Your task to perform on an android device: Show the shopping cart on costco. Search for "logitech g502" on costco, select the first entry, and add it to the cart. Image 0: 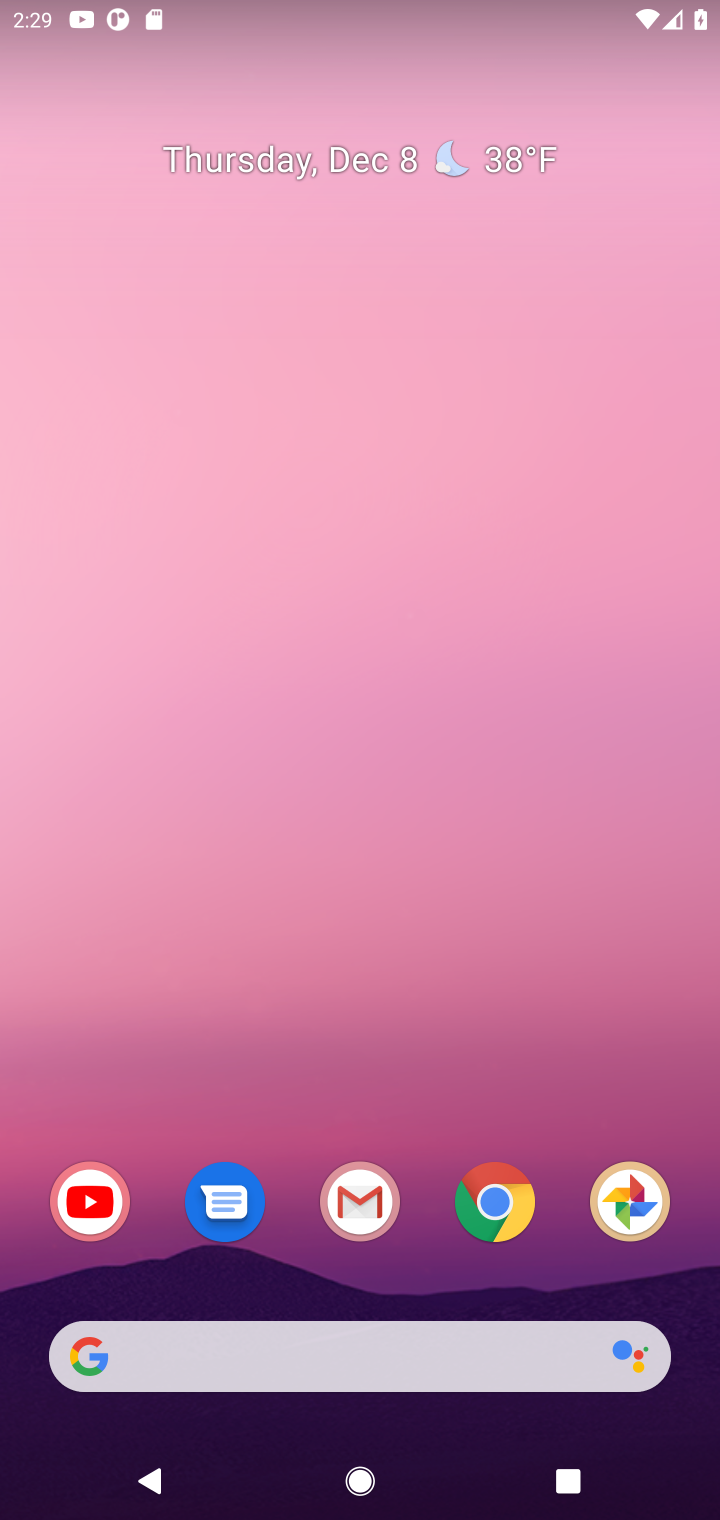
Step 0: click (507, 1203)
Your task to perform on an android device: Show the shopping cart on costco. Search for "logitech g502" on costco, select the first entry, and add it to the cart. Image 1: 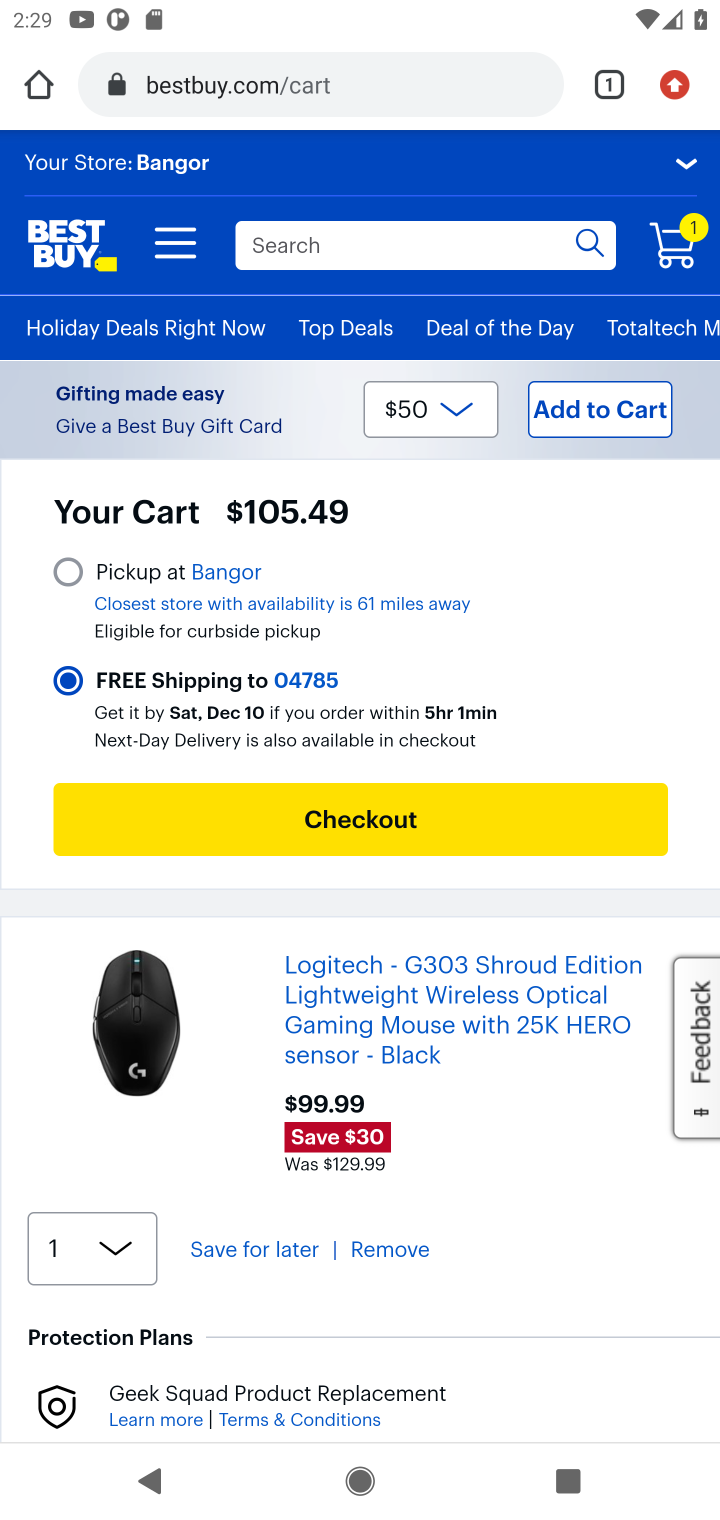
Step 1: click (365, 74)
Your task to perform on an android device: Show the shopping cart on costco. Search for "logitech g502" on costco, select the first entry, and add it to the cart. Image 2: 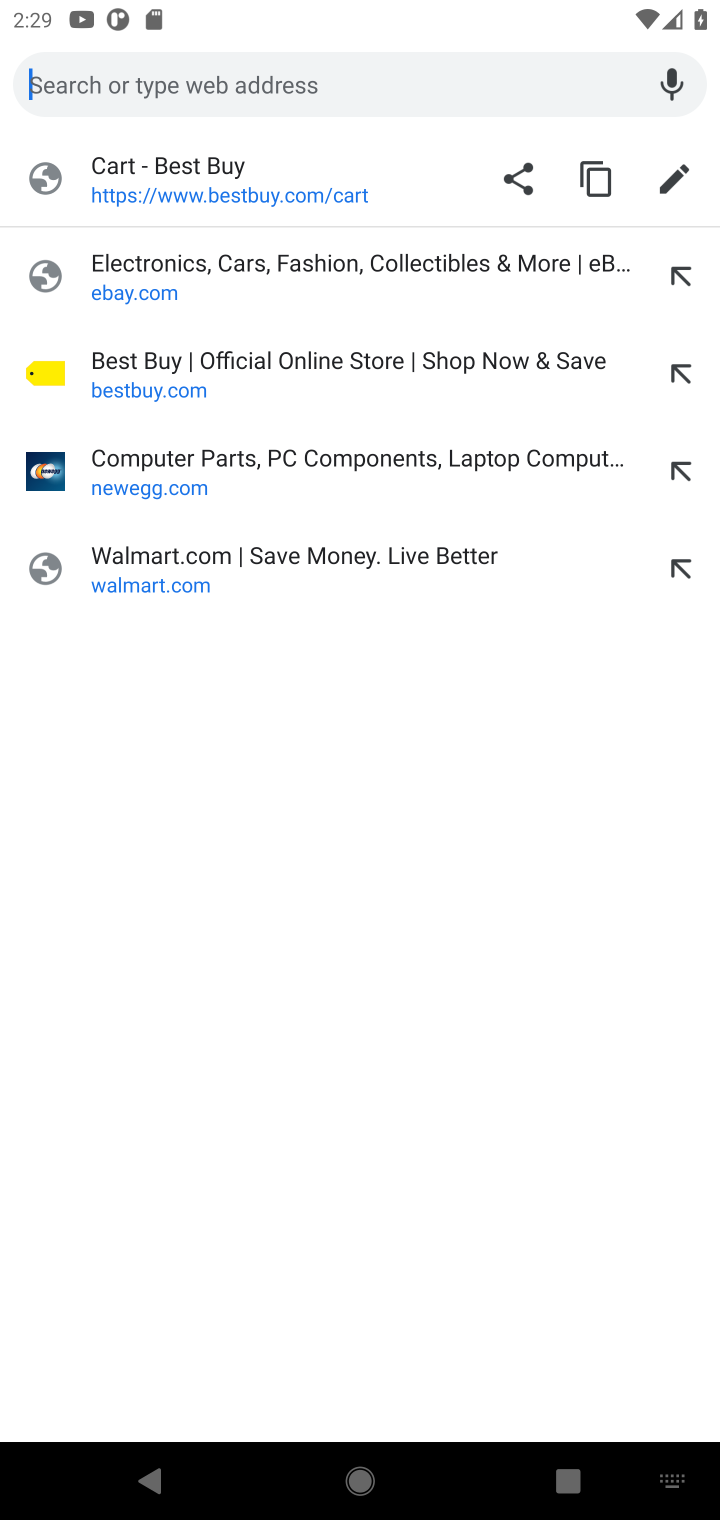
Step 2: press enter
Your task to perform on an android device: Show the shopping cart on costco. Search for "logitech g502" on costco, select the first entry, and add it to the cart. Image 3: 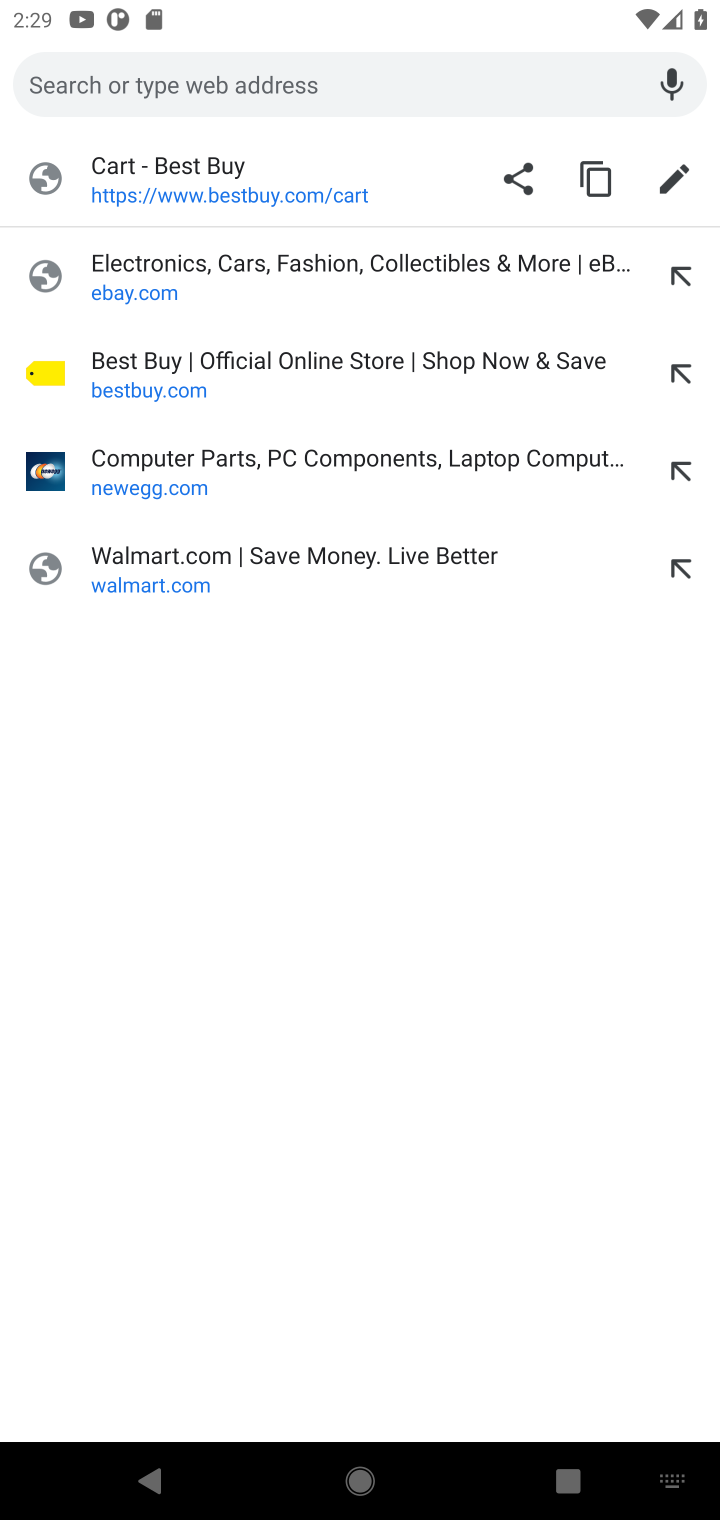
Step 3: type "costco"
Your task to perform on an android device: Show the shopping cart on costco. Search for "logitech g502" on costco, select the first entry, and add it to the cart. Image 4: 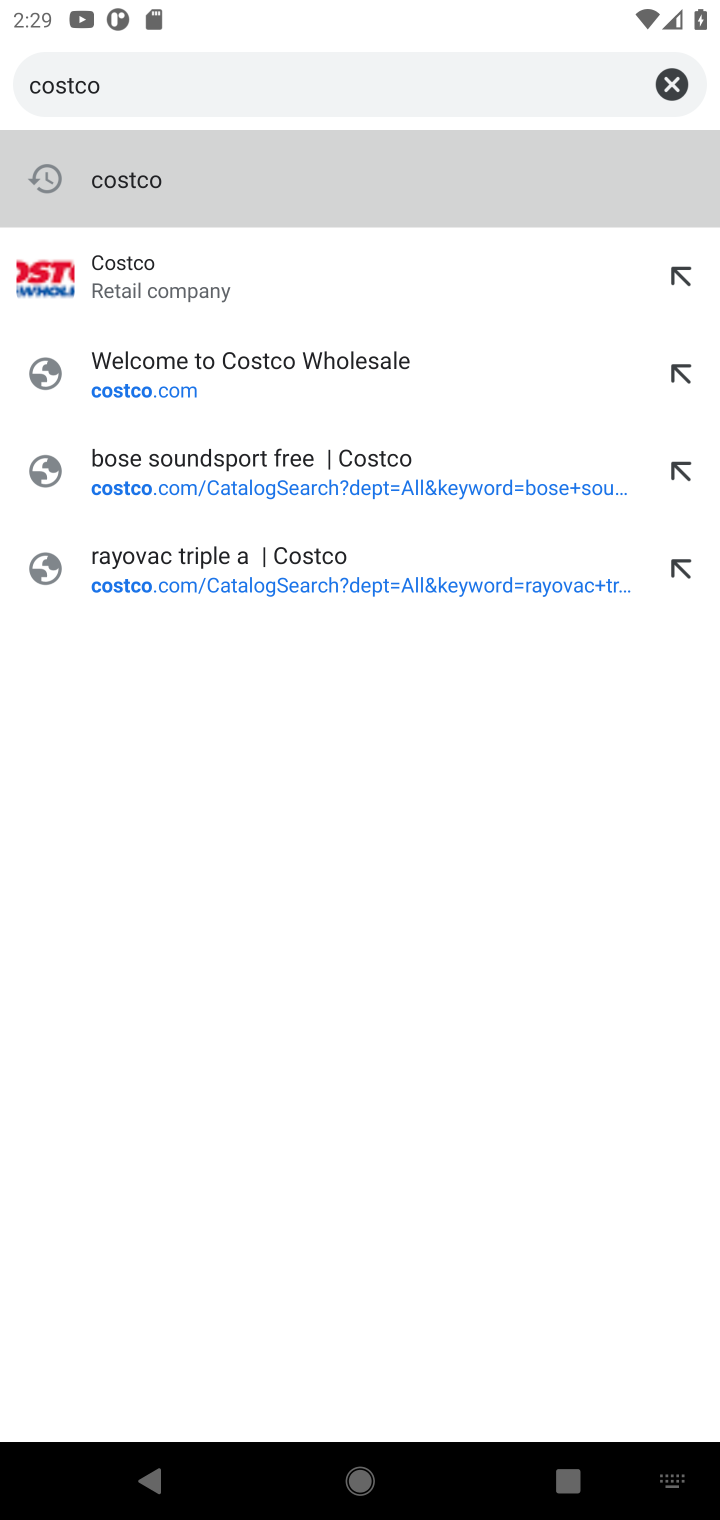
Step 4: click (170, 380)
Your task to perform on an android device: Show the shopping cart on costco. Search for "logitech g502" on costco, select the first entry, and add it to the cart. Image 5: 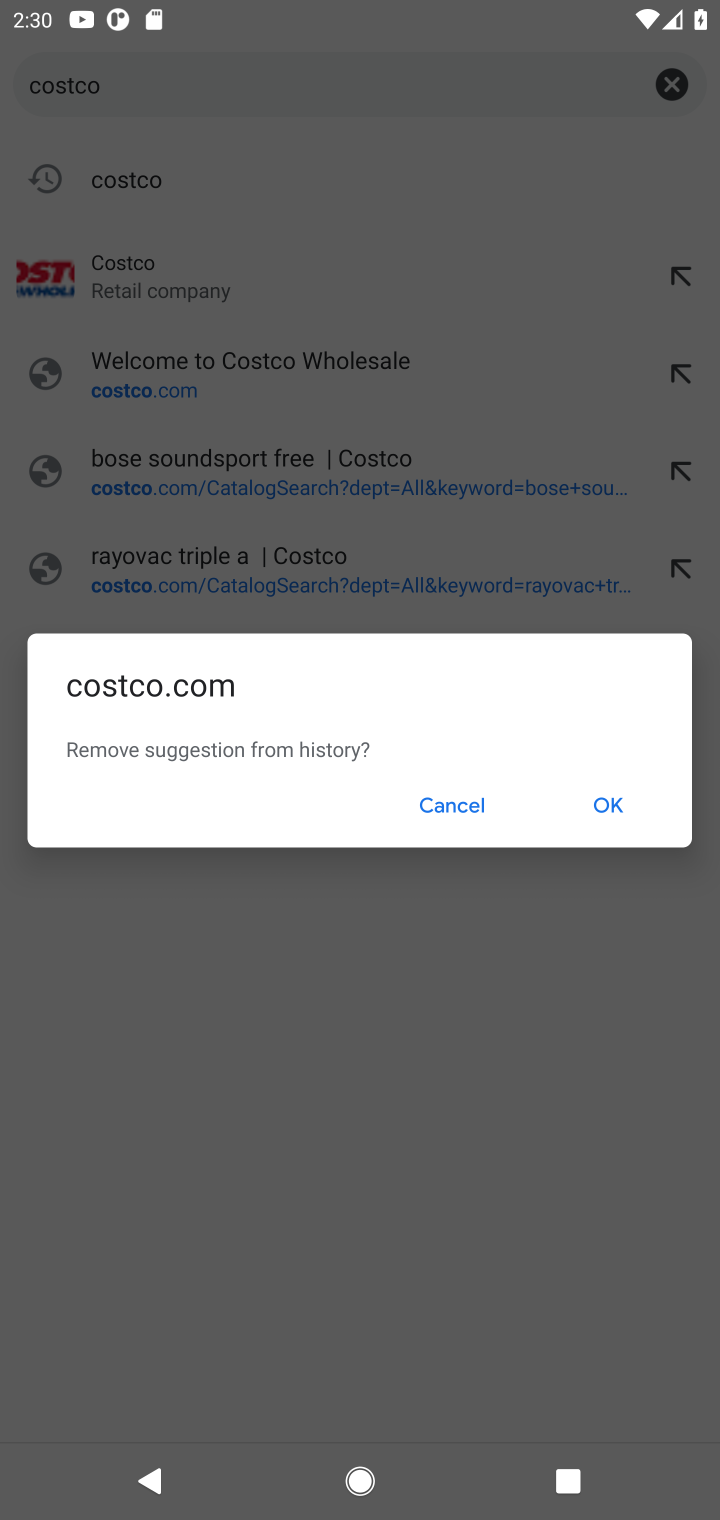
Step 5: click (604, 804)
Your task to perform on an android device: Show the shopping cart on costco. Search for "logitech g502" on costco, select the first entry, and add it to the cart. Image 6: 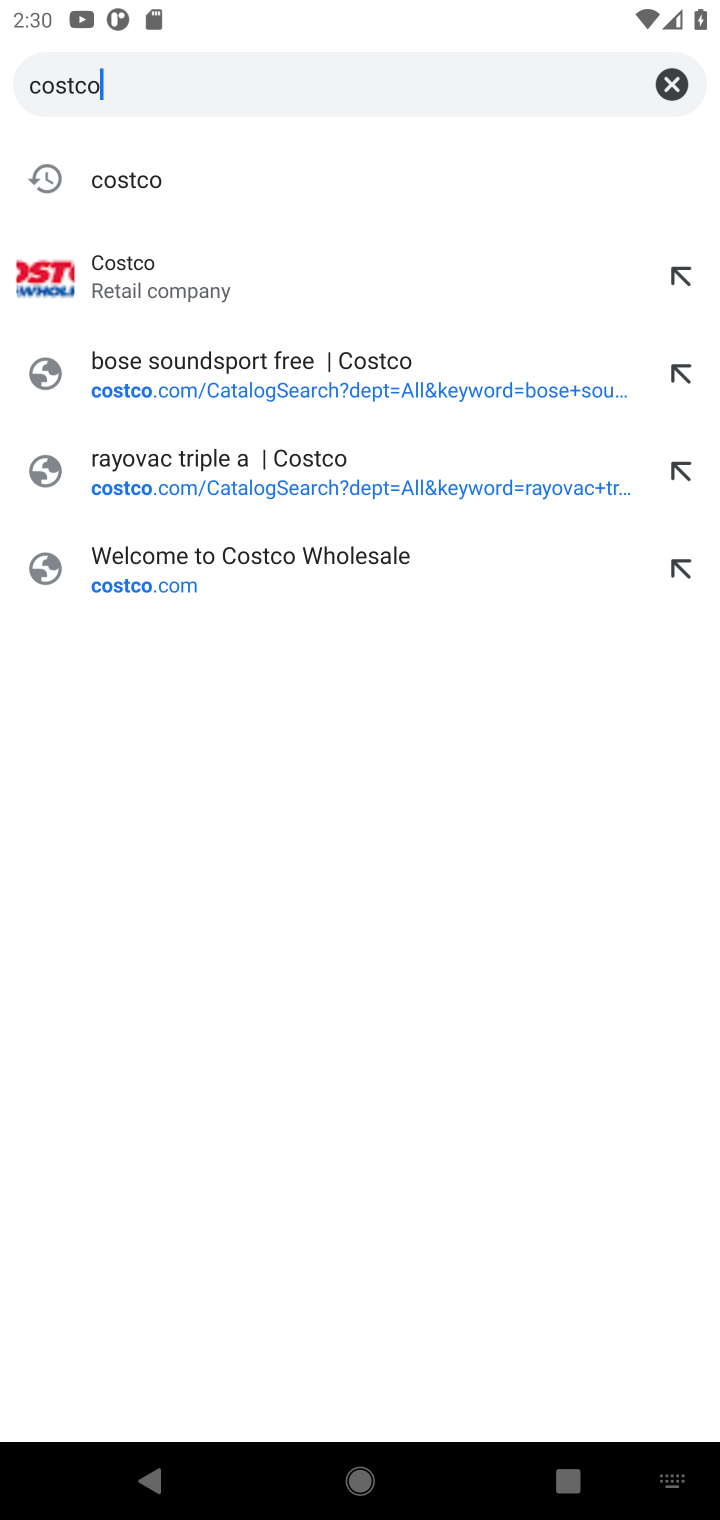
Step 6: click (130, 177)
Your task to perform on an android device: Show the shopping cart on costco. Search for "logitech g502" on costco, select the first entry, and add it to the cart. Image 7: 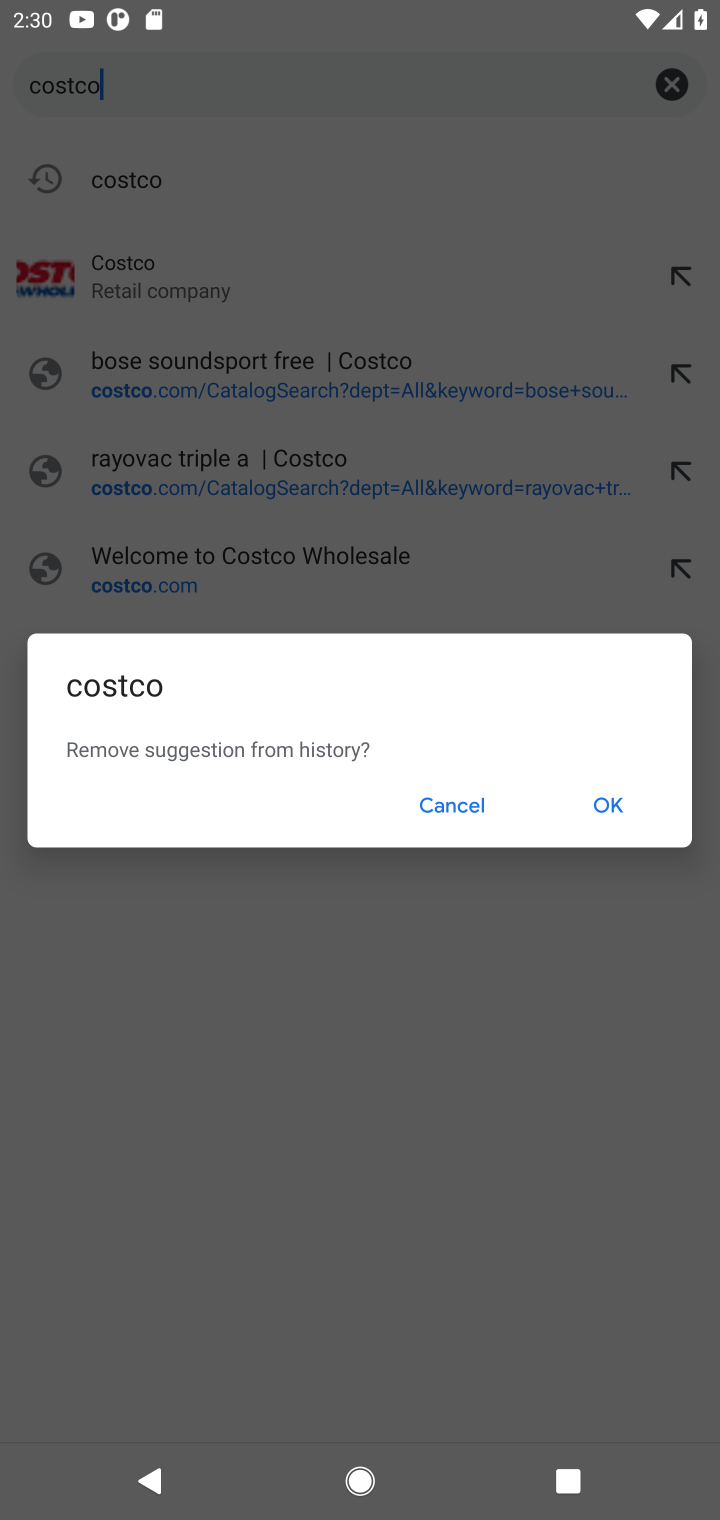
Step 7: click (604, 798)
Your task to perform on an android device: Show the shopping cart on costco. Search for "logitech g502" on costco, select the first entry, and add it to the cart. Image 8: 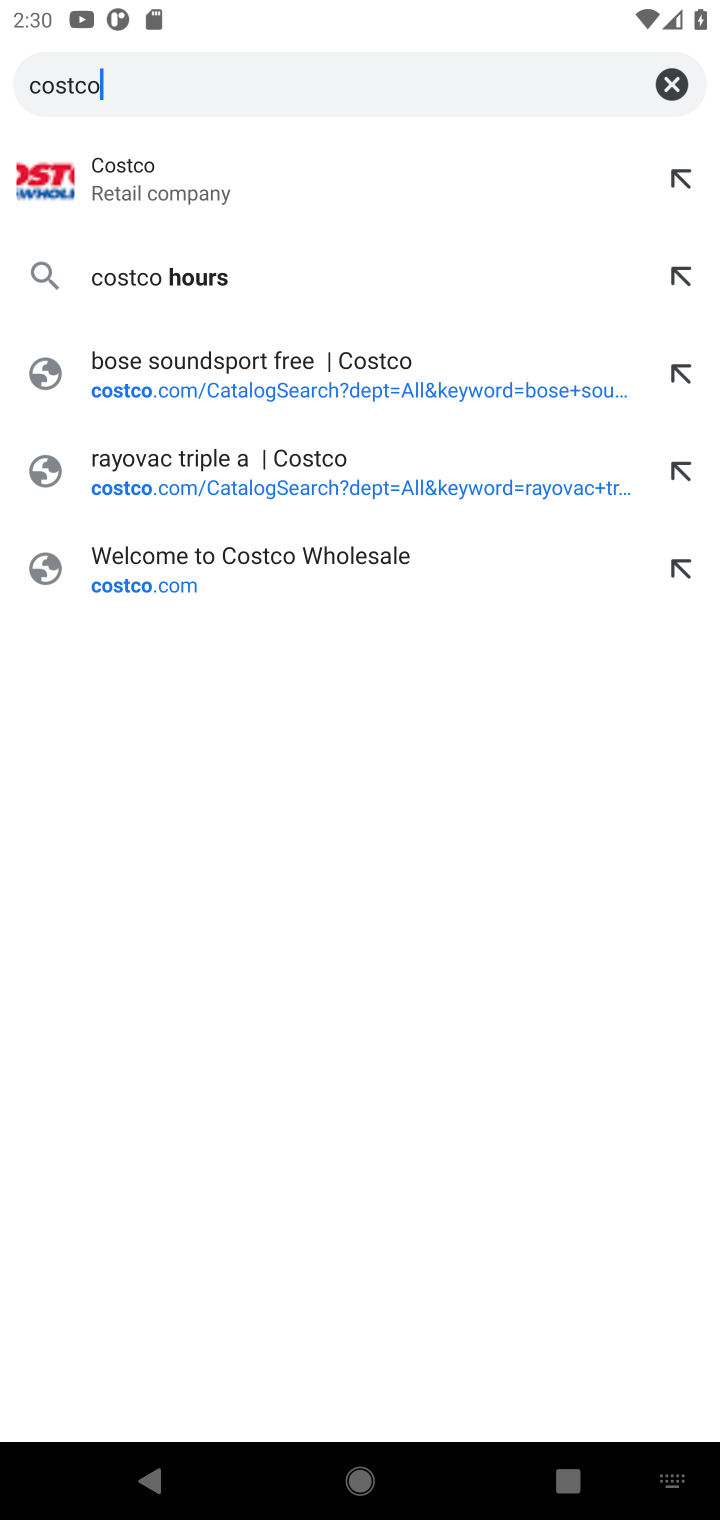
Step 8: click (159, 563)
Your task to perform on an android device: Show the shopping cart on costco. Search for "logitech g502" on costco, select the first entry, and add it to the cart. Image 9: 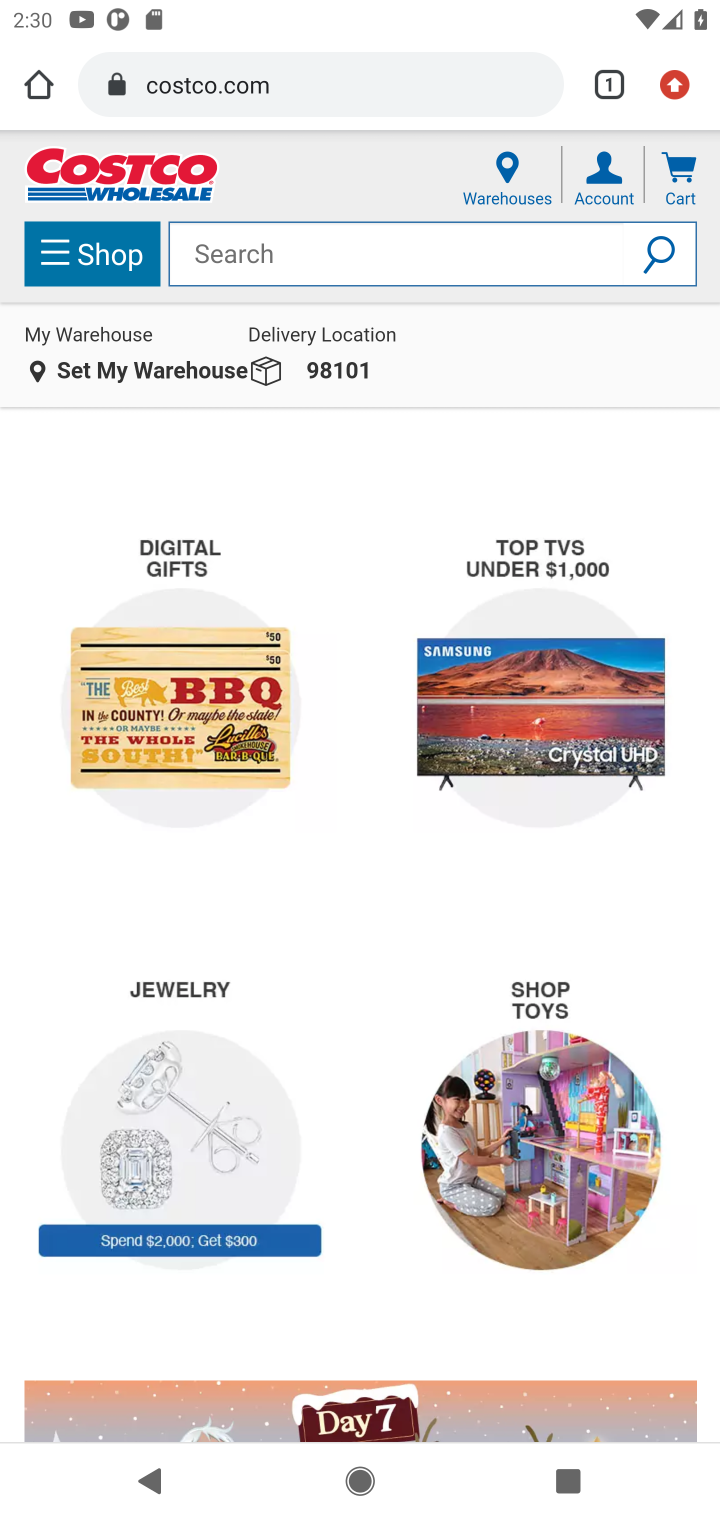
Step 9: click (673, 177)
Your task to perform on an android device: Show the shopping cart on costco. Search for "logitech g502" on costco, select the first entry, and add it to the cart. Image 10: 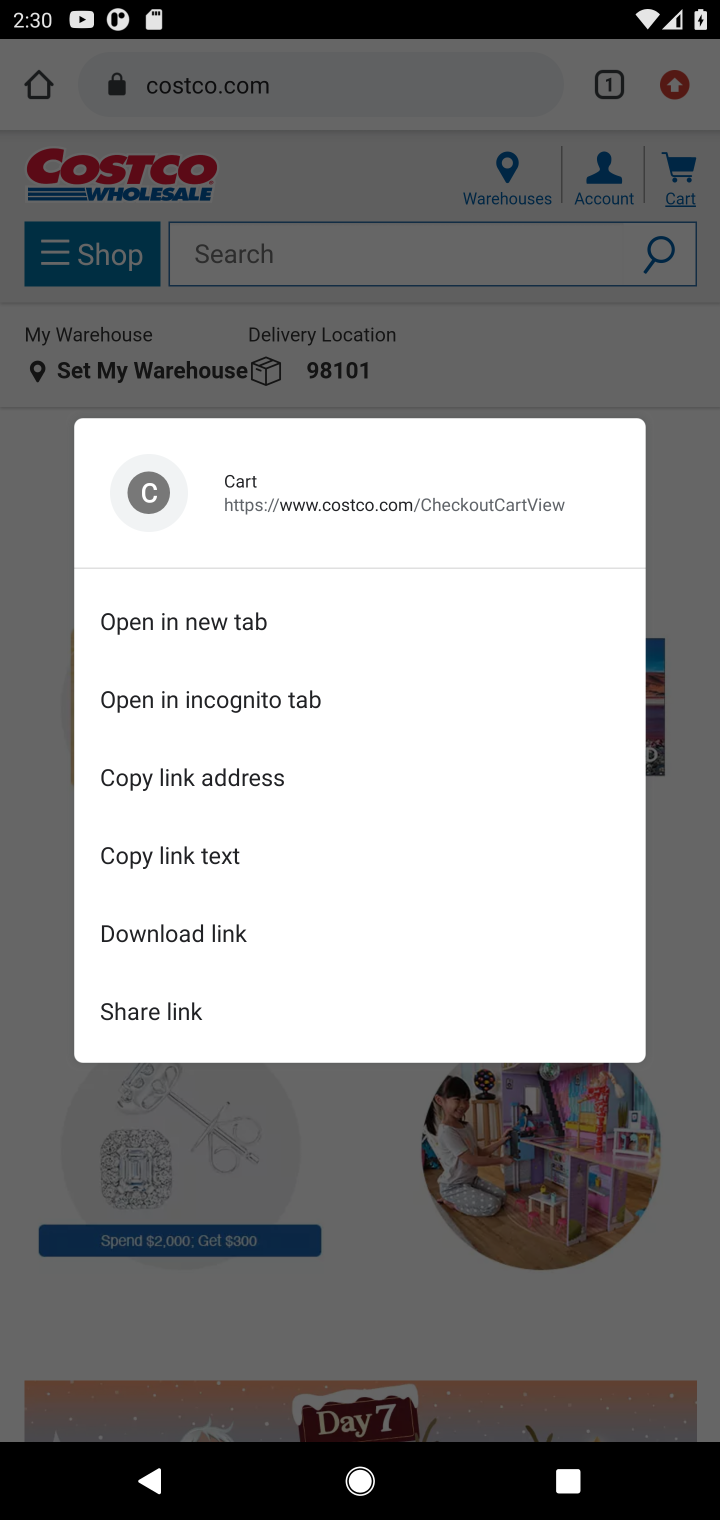
Step 10: click (676, 175)
Your task to perform on an android device: Show the shopping cart on costco. Search for "logitech g502" on costco, select the first entry, and add it to the cart. Image 11: 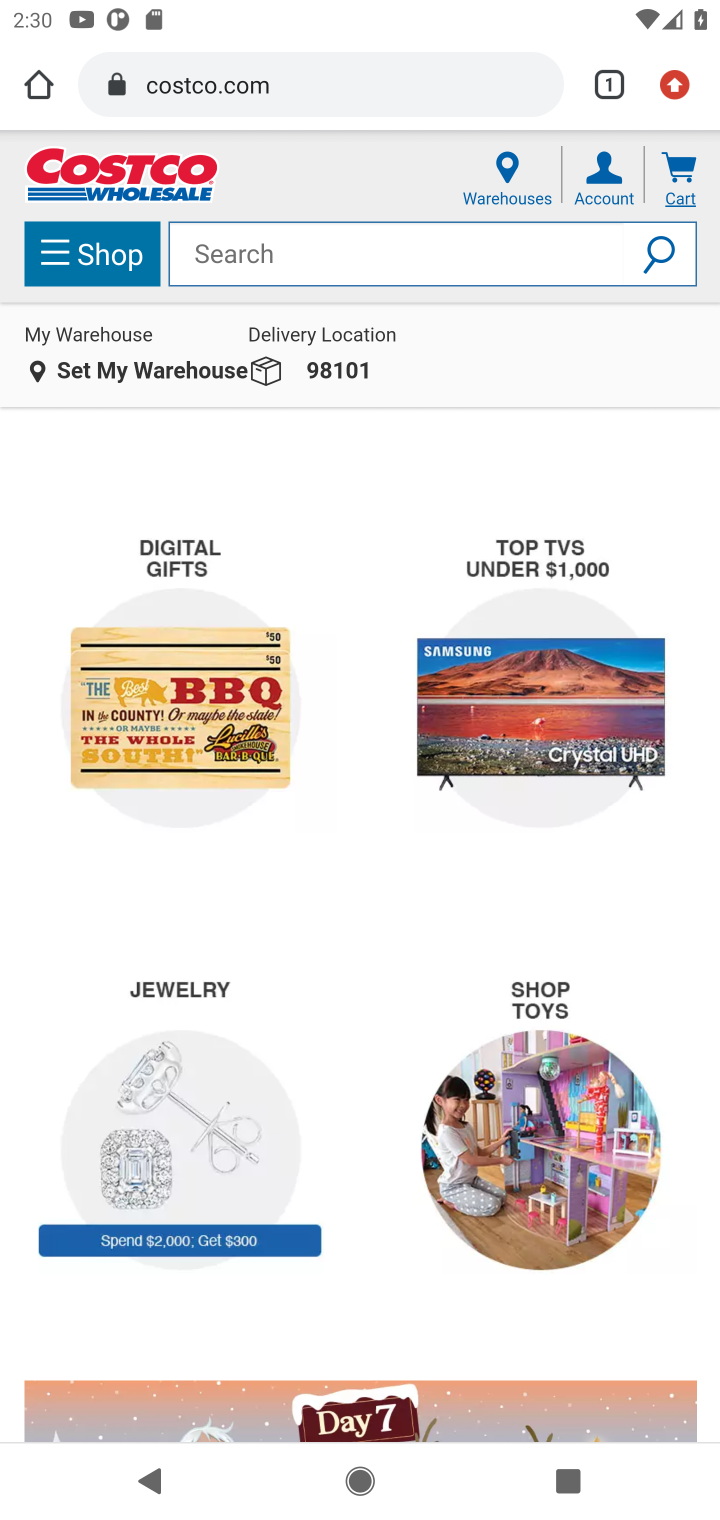
Step 11: click (676, 175)
Your task to perform on an android device: Show the shopping cart on costco. Search for "logitech g502" on costco, select the first entry, and add it to the cart. Image 12: 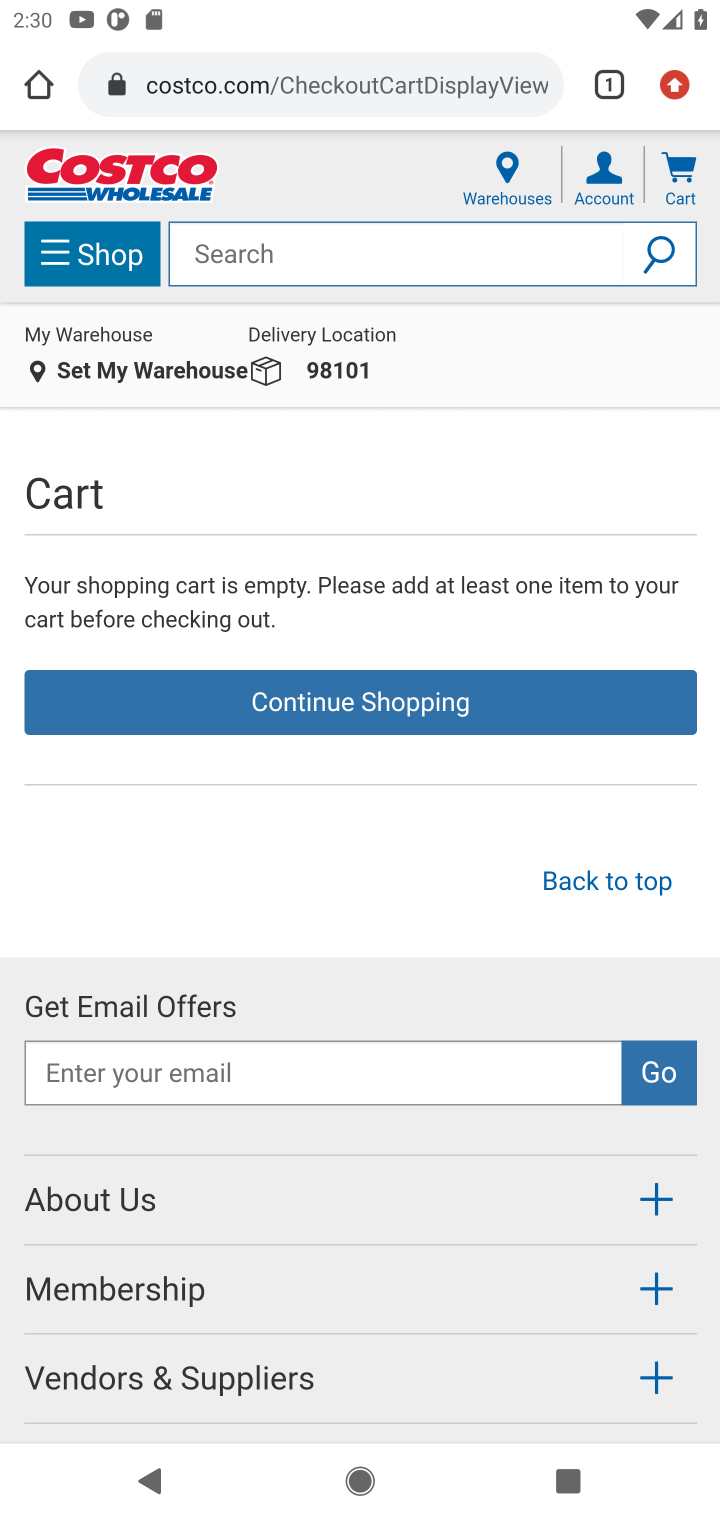
Step 12: click (298, 247)
Your task to perform on an android device: Show the shopping cart on costco. Search for "logitech g502" on costco, select the first entry, and add it to the cart. Image 13: 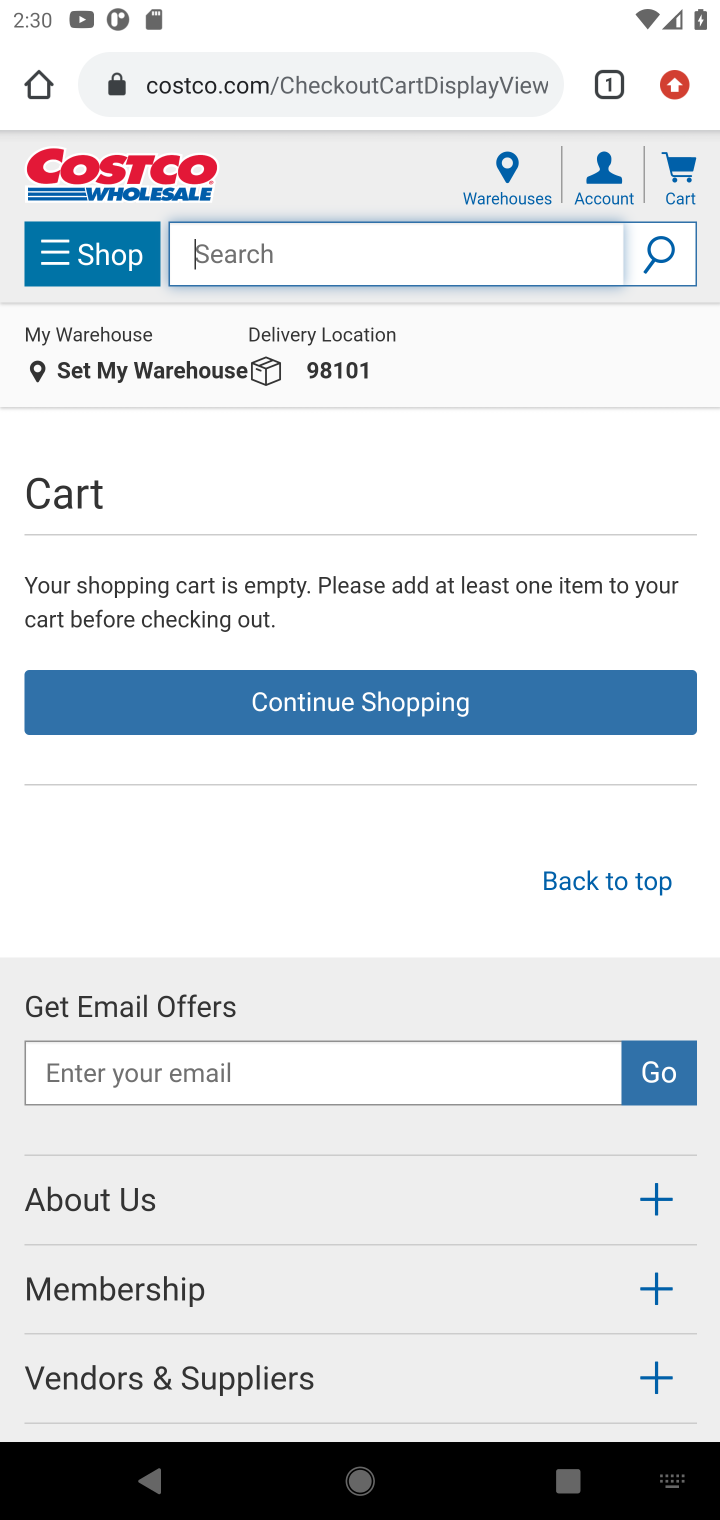
Step 13: type "logitech g502"
Your task to perform on an android device: Show the shopping cart on costco. Search for "logitech g502" on costco, select the first entry, and add it to the cart. Image 14: 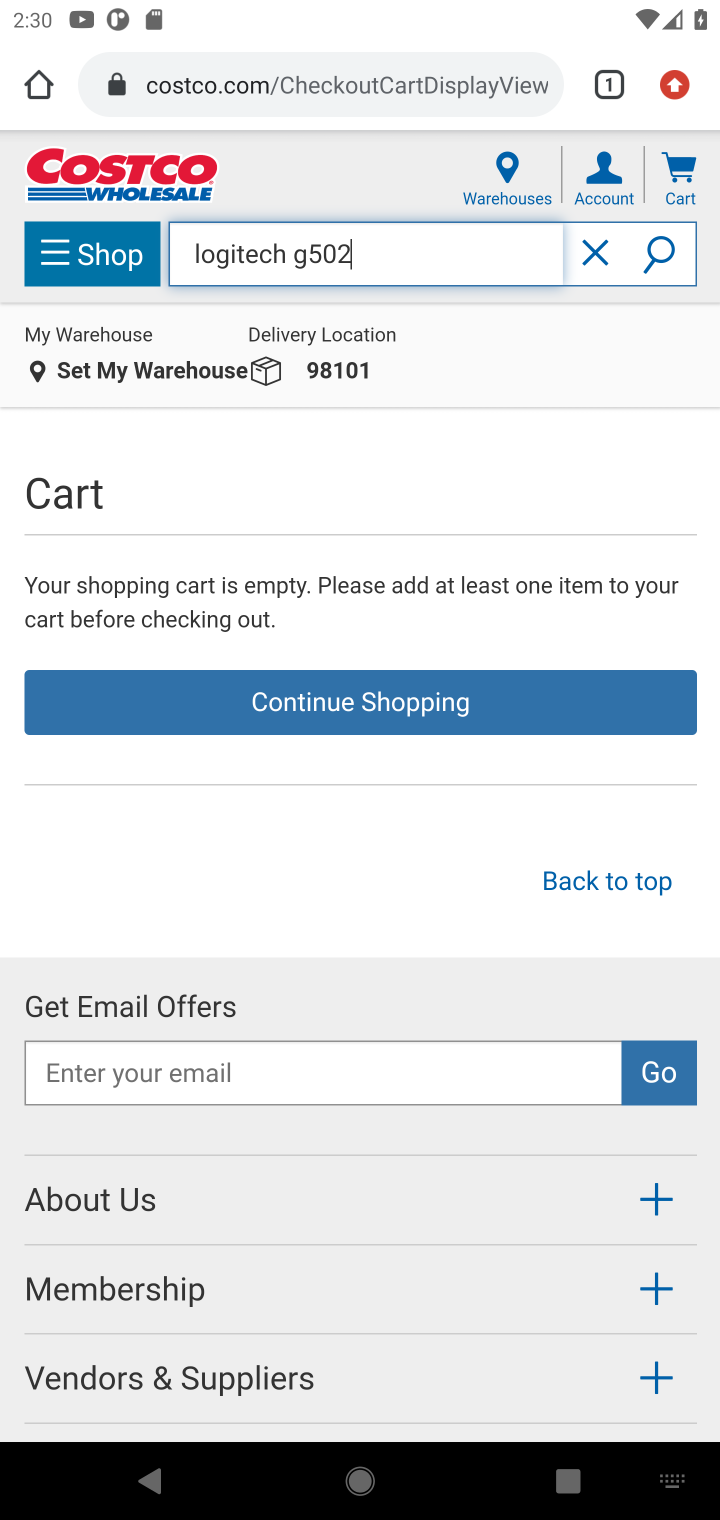
Step 14: press enter
Your task to perform on an android device: Show the shopping cart on costco. Search for "logitech g502" on costco, select the first entry, and add it to the cart. Image 15: 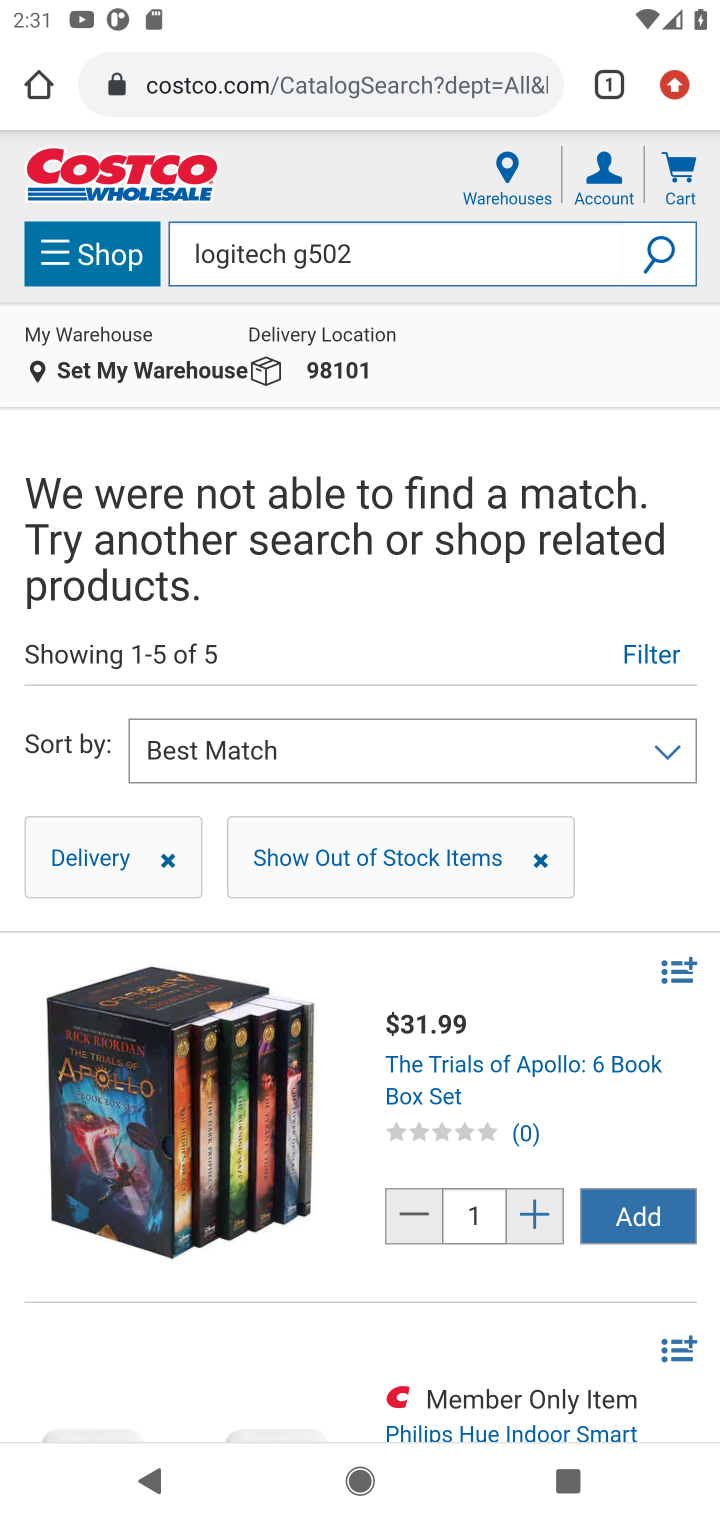
Step 15: task complete